Your task to perform on an android device: change timer sound Image 0: 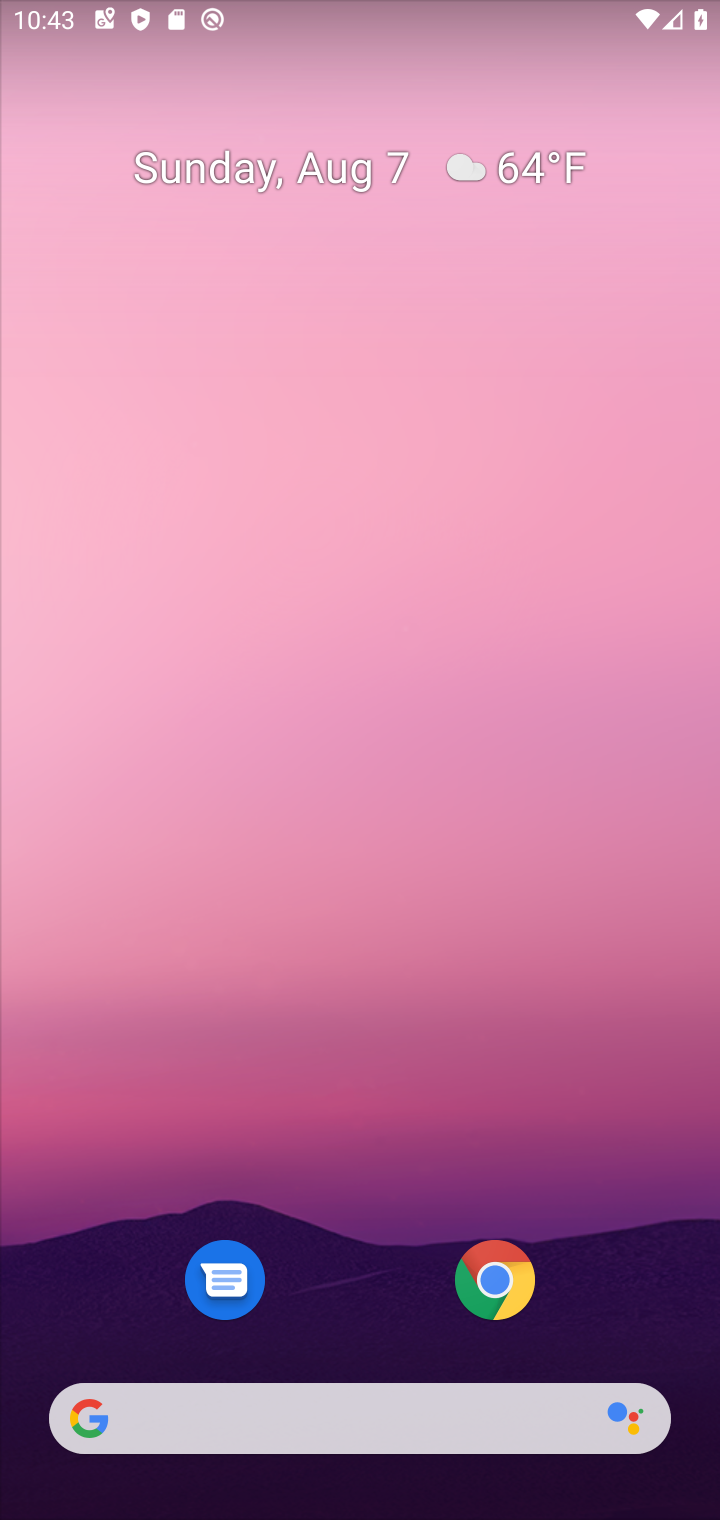
Step 0: drag from (406, 1300) to (555, 23)
Your task to perform on an android device: change timer sound Image 1: 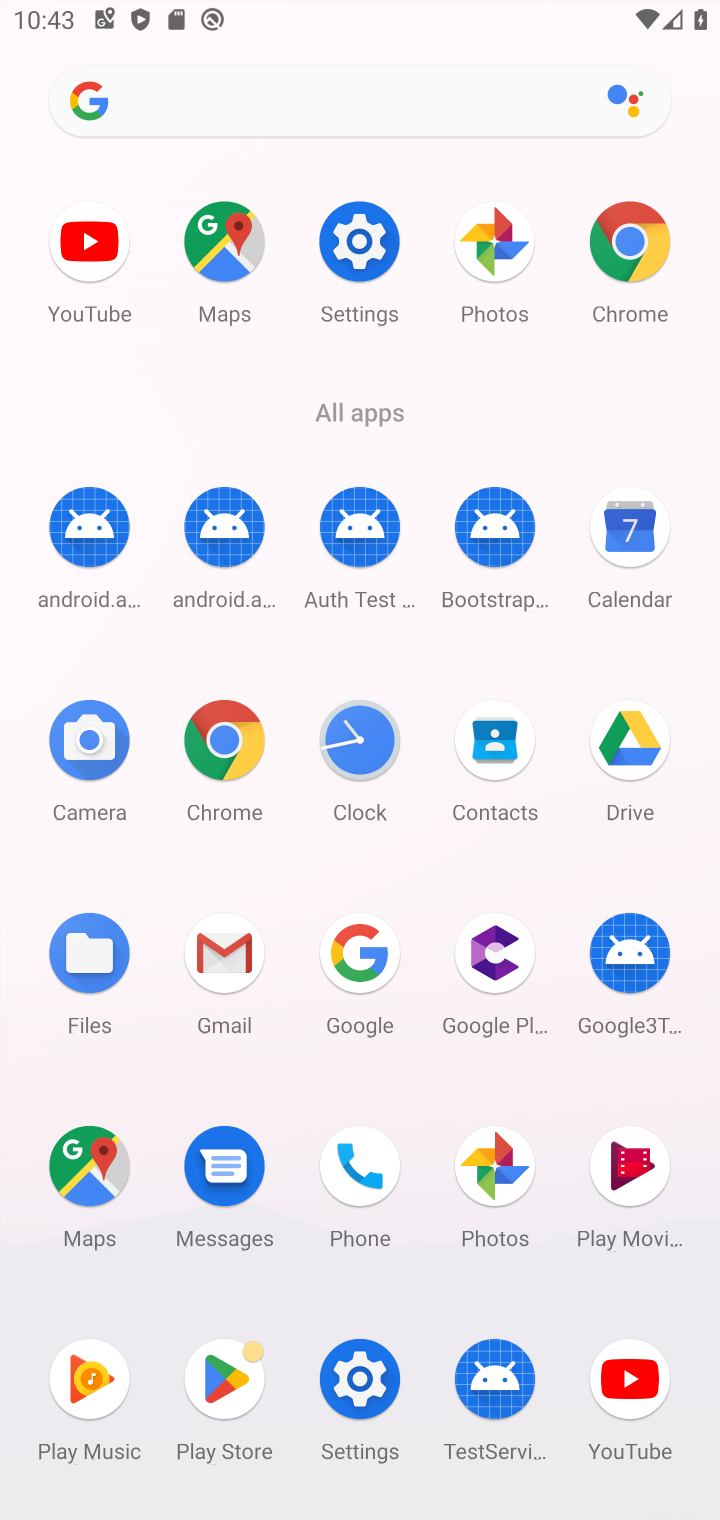
Step 1: click (363, 747)
Your task to perform on an android device: change timer sound Image 2: 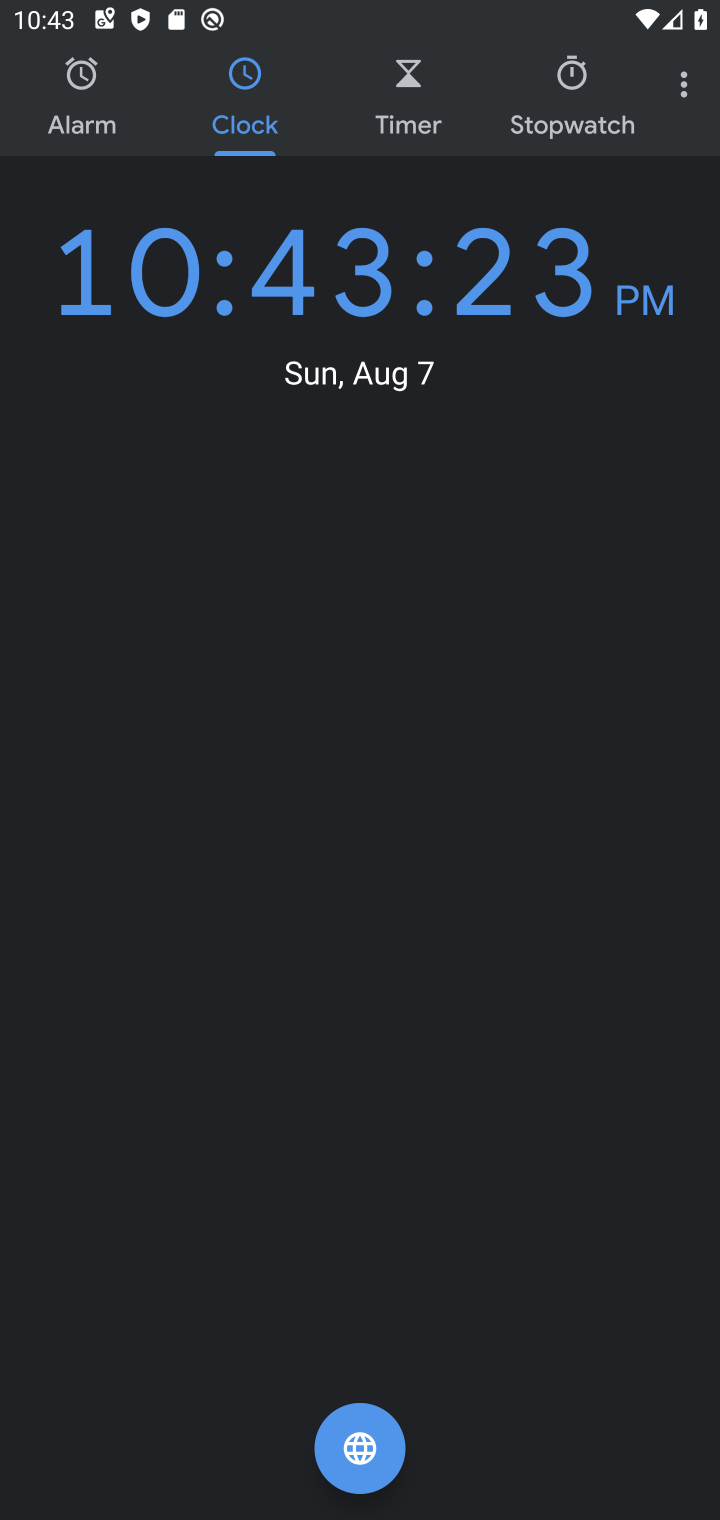
Step 2: click (689, 63)
Your task to perform on an android device: change timer sound Image 3: 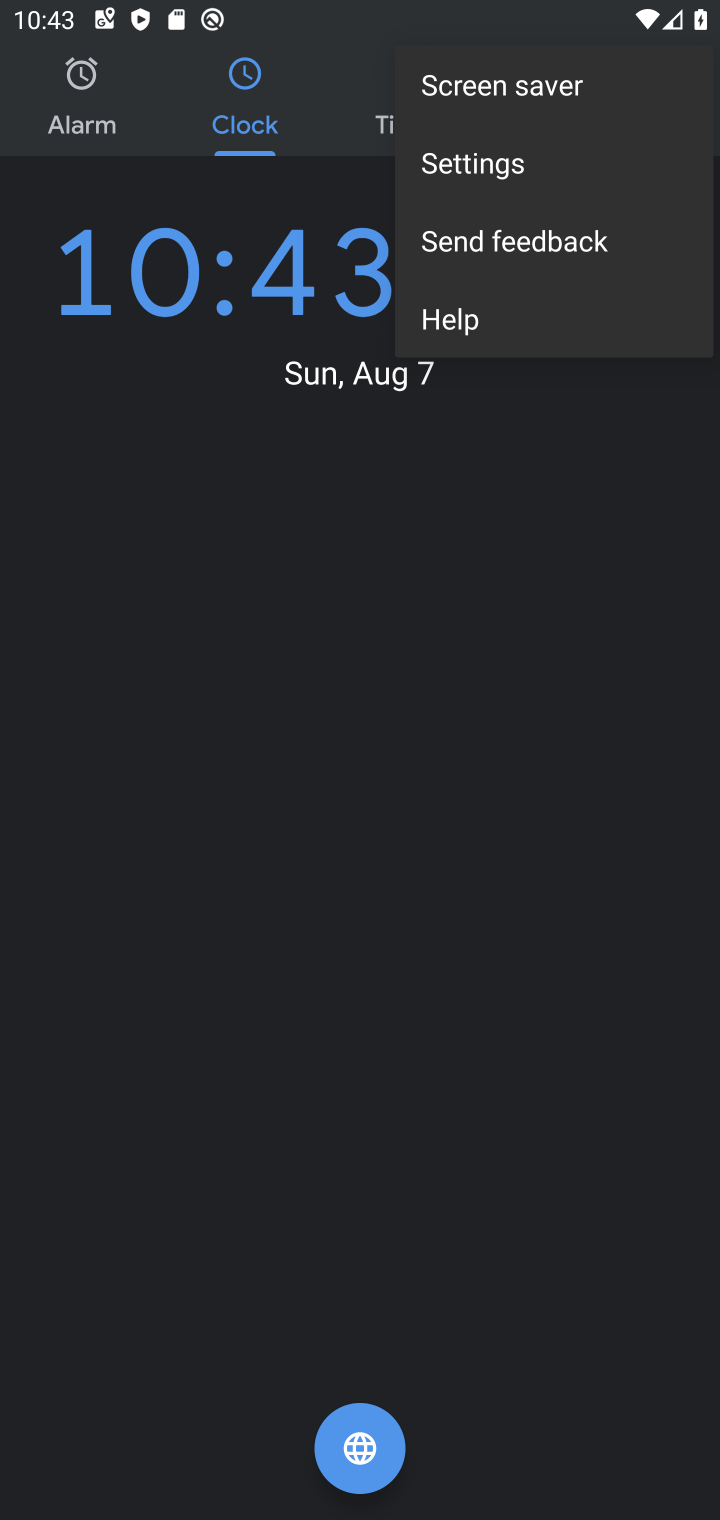
Step 3: click (514, 170)
Your task to perform on an android device: change timer sound Image 4: 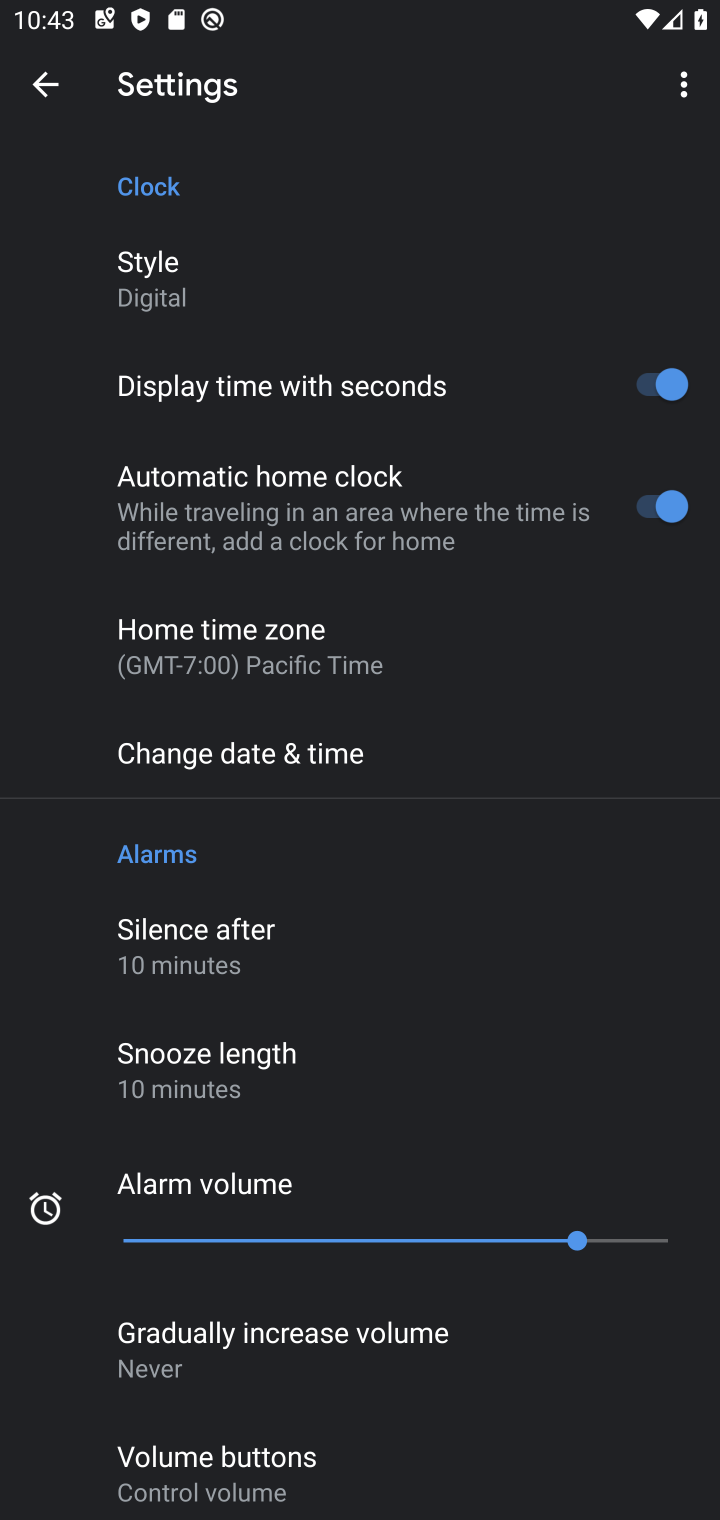
Step 4: drag from (321, 1277) to (493, 435)
Your task to perform on an android device: change timer sound Image 5: 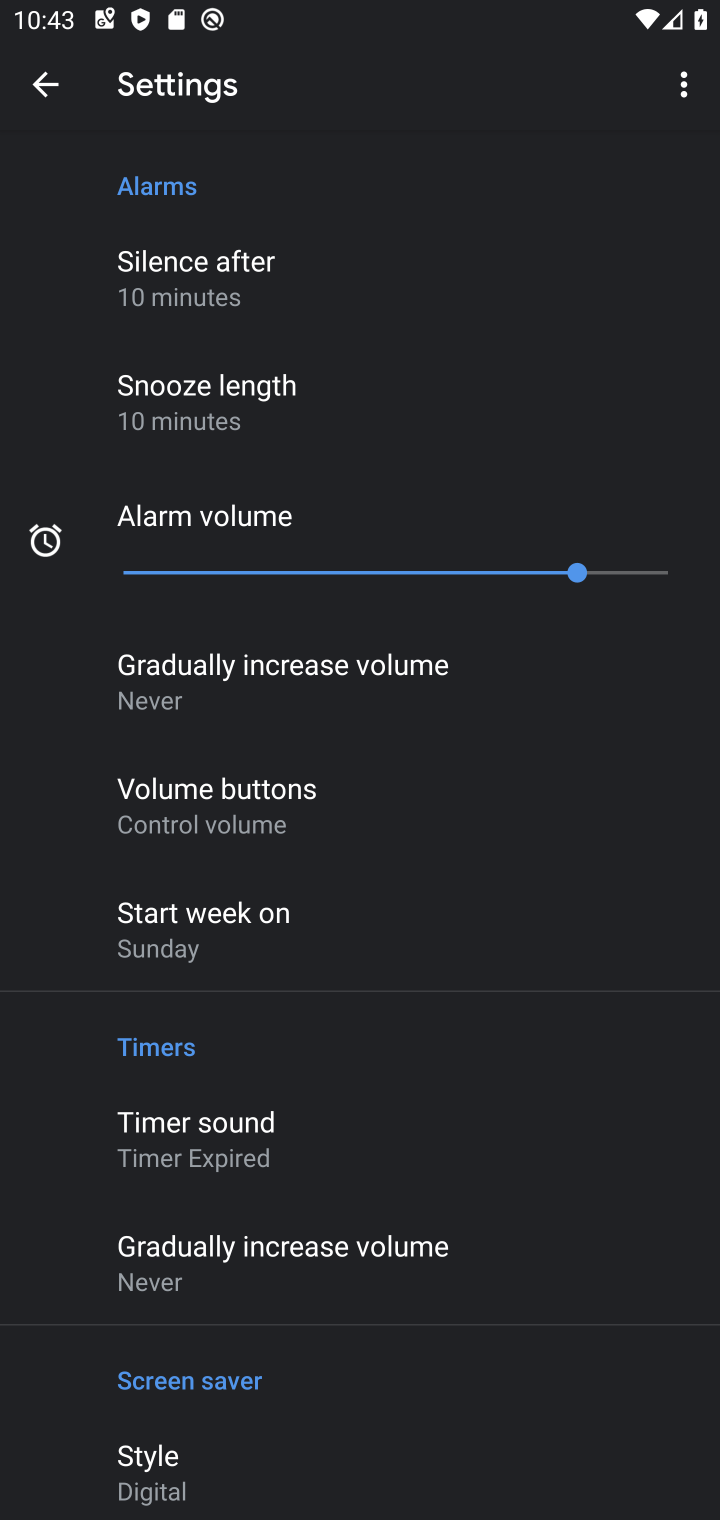
Step 5: click (290, 1139)
Your task to perform on an android device: change timer sound Image 6: 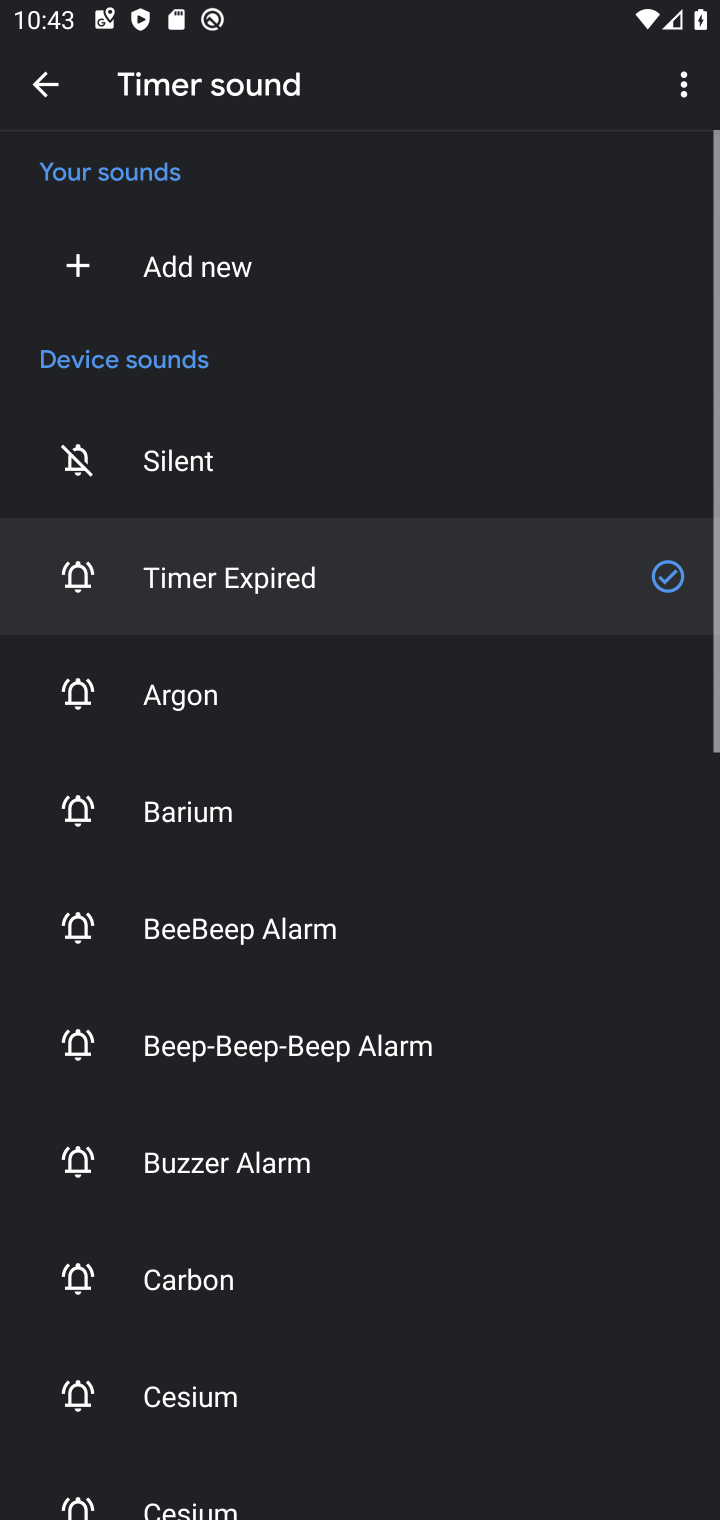
Step 6: click (183, 696)
Your task to perform on an android device: change timer sound Image 7: 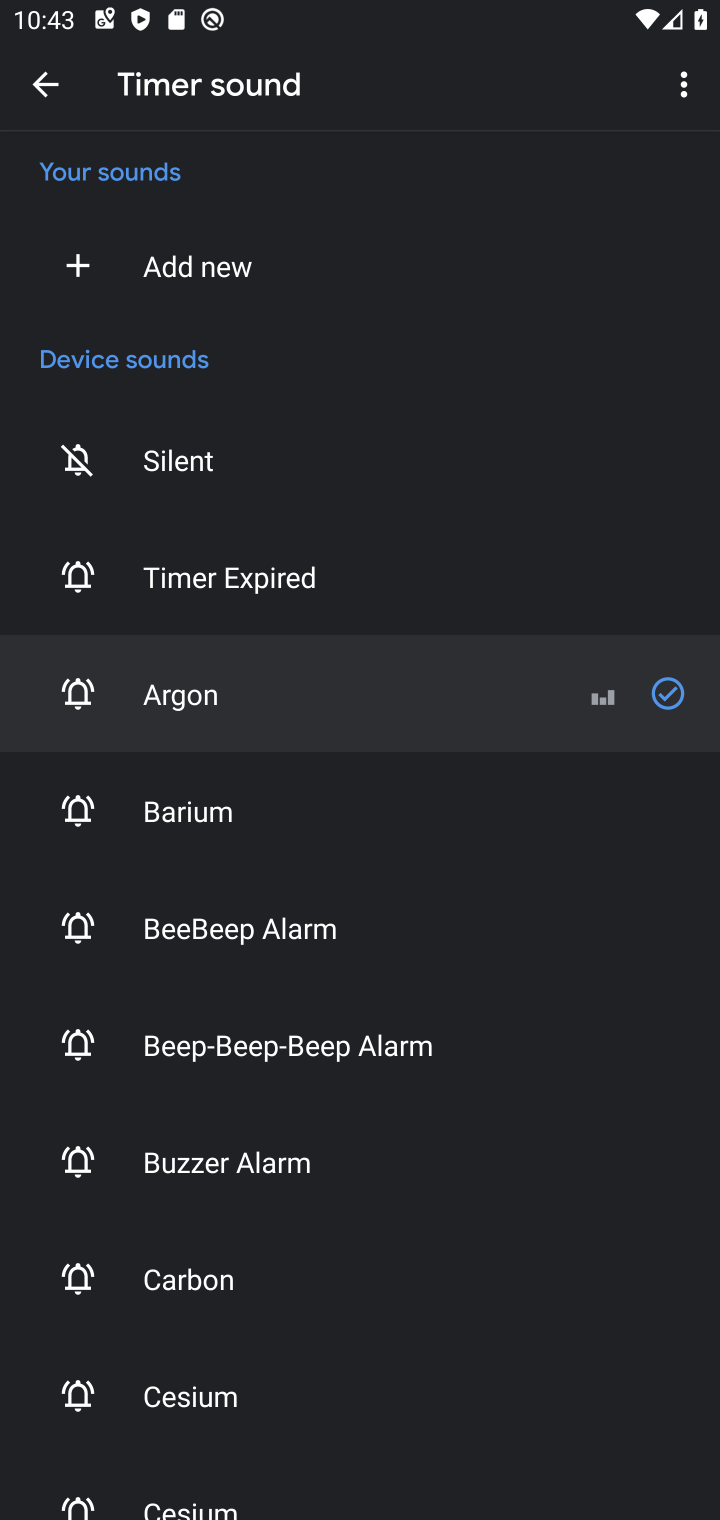
Step 7: task complete